Your task to perform on an android device: Open accessibility settings Image 0: 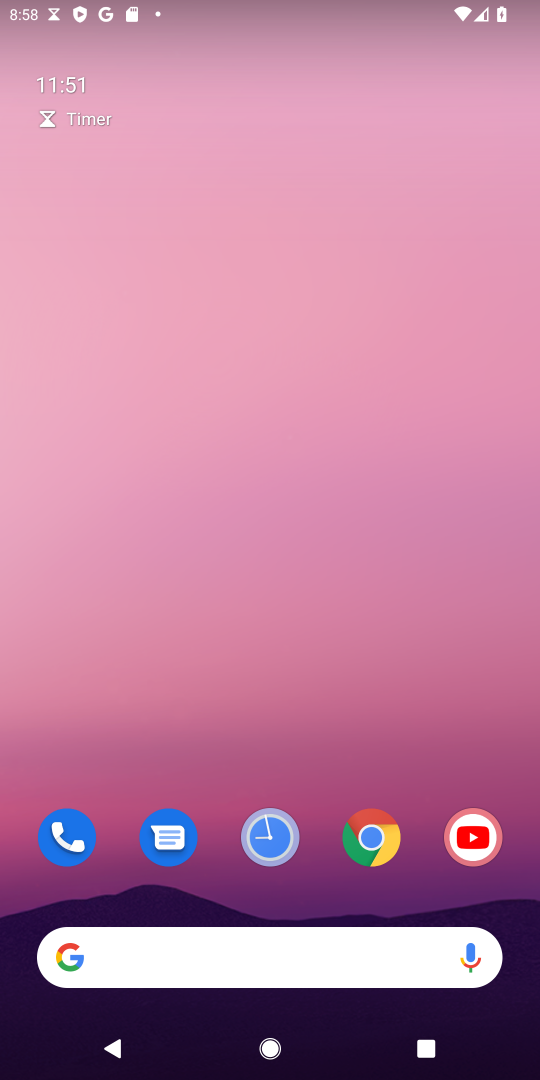
Step 0: drag from (313, 903) to (293, 113)
Your task to perform on an android device: Open accessibility settings Image 1: 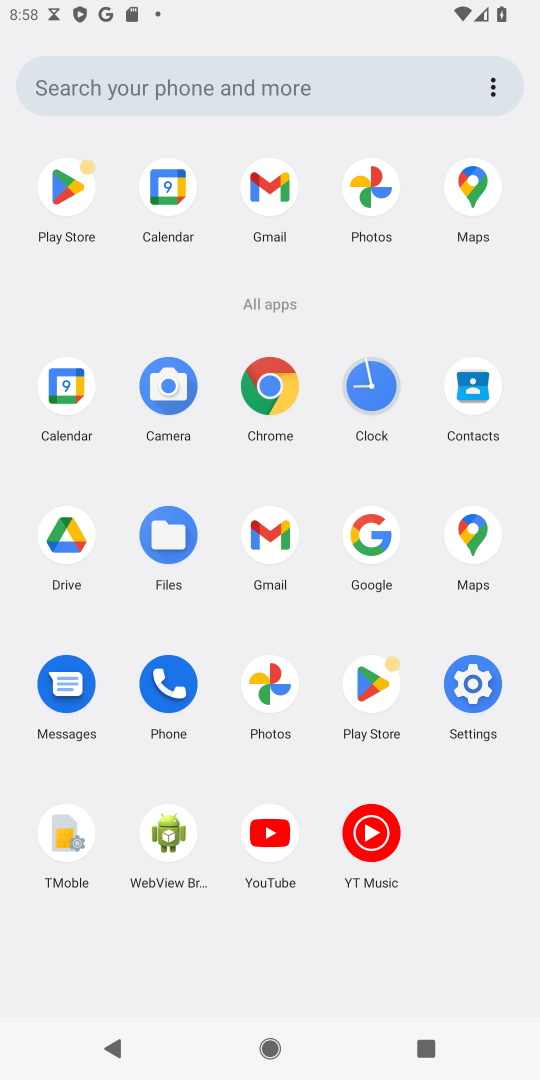
Step 1: click (477, 689)
Your task to perform on an android device: Open accessibility settings Image 2: 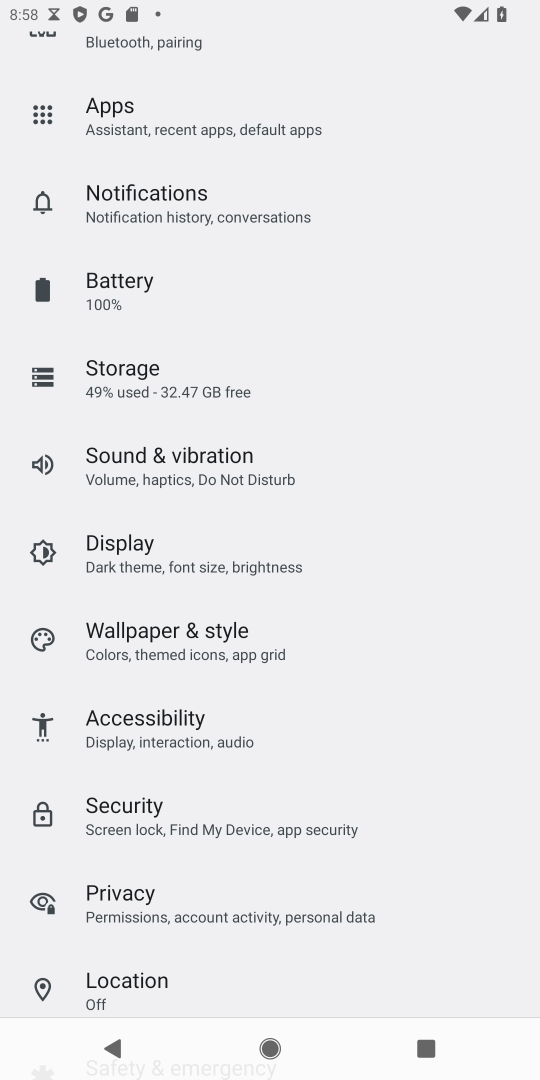
Step 2: click (148, 722)
Your task to perform on an android device: Open accessibility settings Image 3: 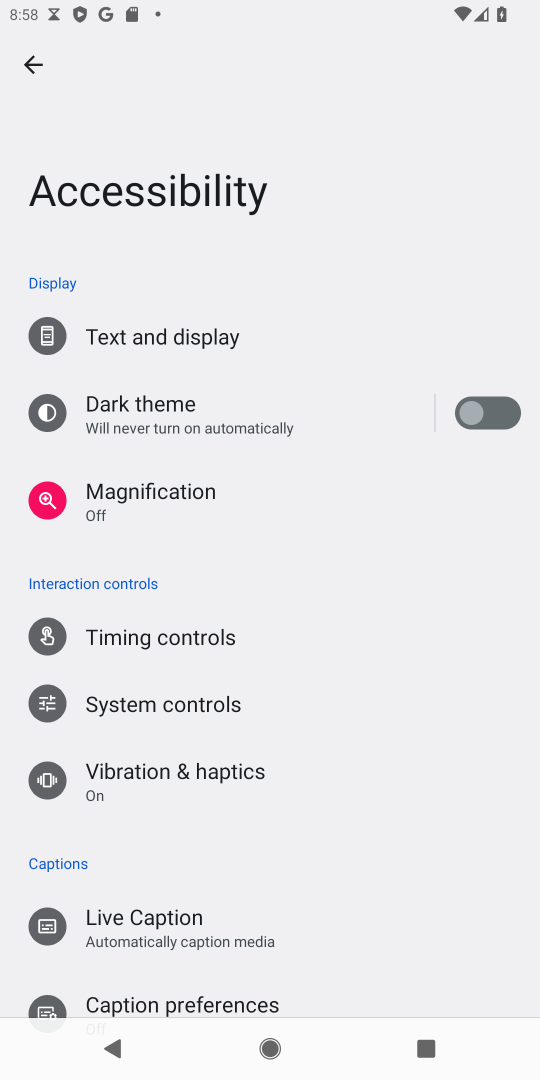
Step 3: task complete